Your task to perform on an android device: Clear the cart on newegg.com. Add logitech g pro to the cart on newegg.com, then select checkout. Image 0: 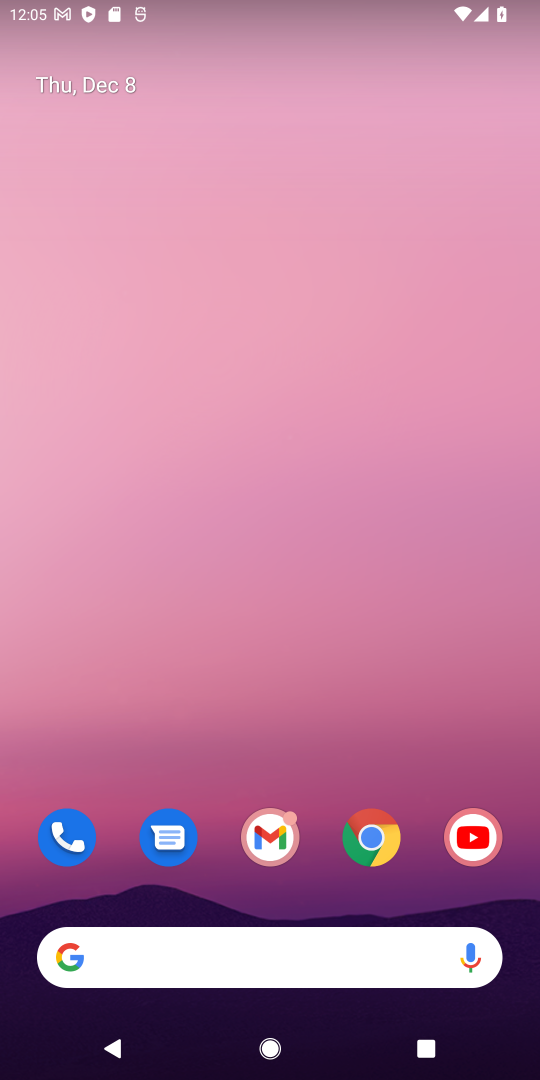
Step 0: click (370, 848)
Your task to perform on an android device: Clear the cart on newegg.com. Add logitech g pro to the cart on newegg.com, then select checkout. Image 1: 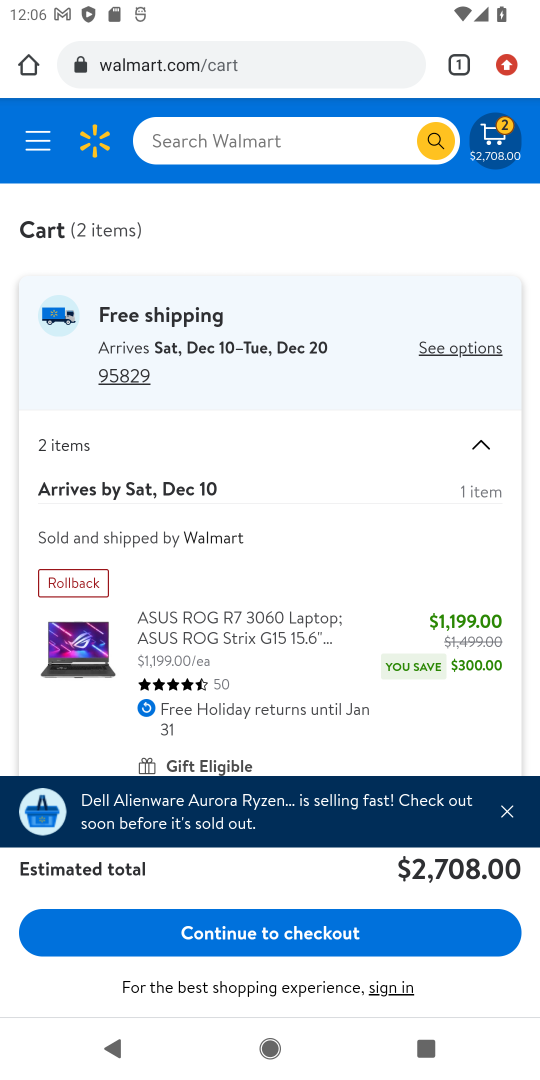
Step 1: click (179, 53)
Your task to perform on an android device: Clear the cart on newegg.com. Add logitech g pro to the cart on newegg.com, then select checkout. Image 2: 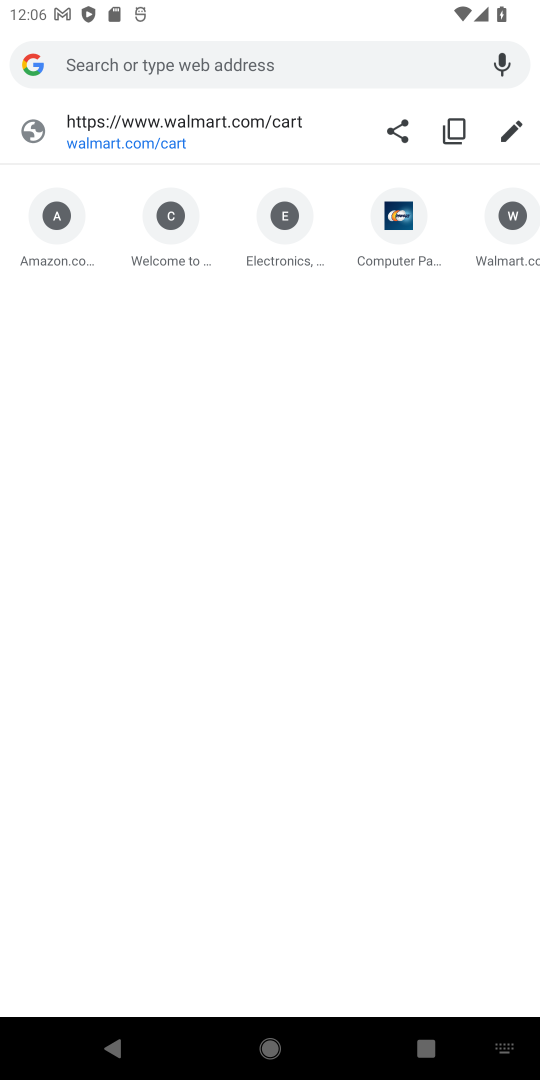
Step 2: type "newegg.com"
Your task to perform on an android device: Clear the cart on newegg.com. Add logitech g pro to the cart on newegg.com, then select checkout. Image 3: 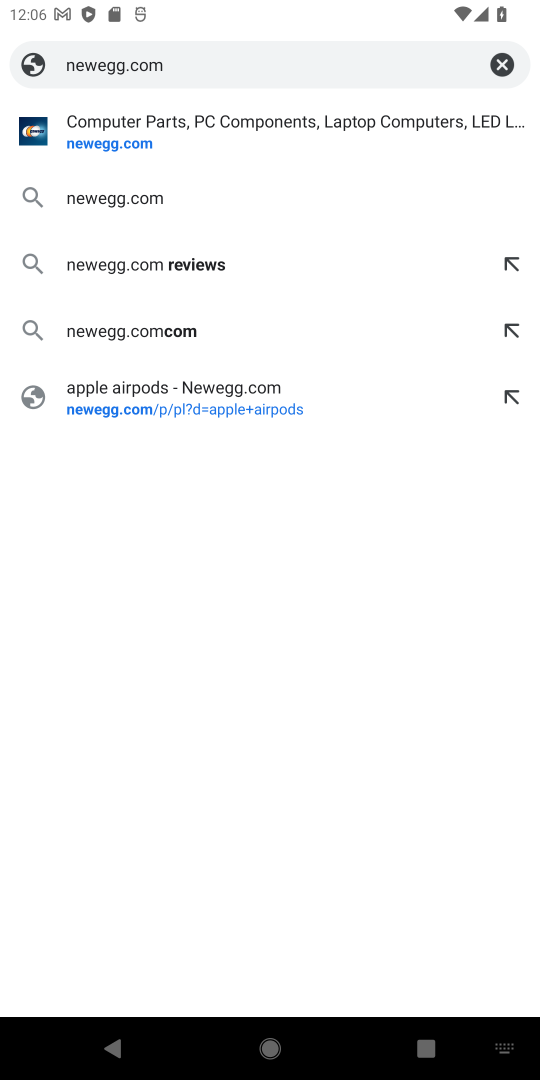
Step 3: press enter
Your task to perform on an android device: Clear the cart on newegg.com. Add logitech g pro to the cart on newegg.com, then select checkout. Image 4: 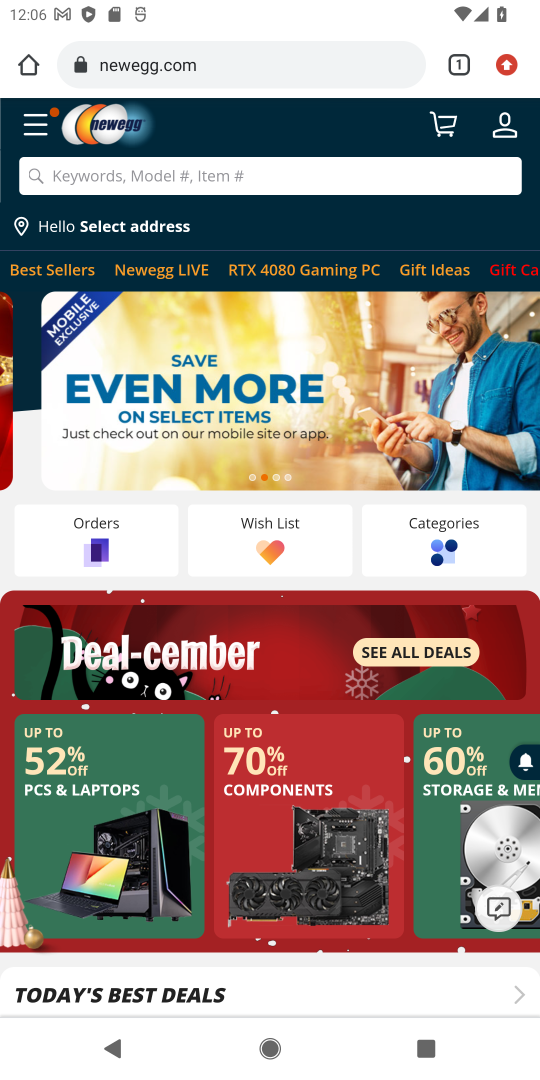
Step 4: click (442, 125)
Your task to perform on an android device: Clear the cart on newegg.com. Add logitech g pro to the cart on newegg.com, then select checkout. Image 5: 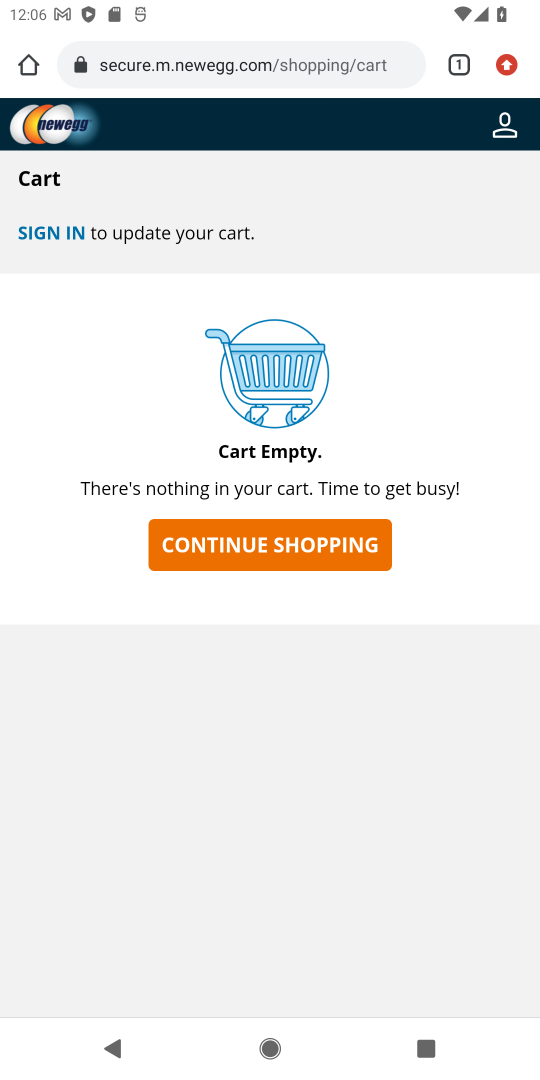
Step 5: click (39, 133)
Your task to perform on an android device: Clear the cart on newegg.com. Add logitech g pro to the cart on newegg.com, then select checkout. Image 6: 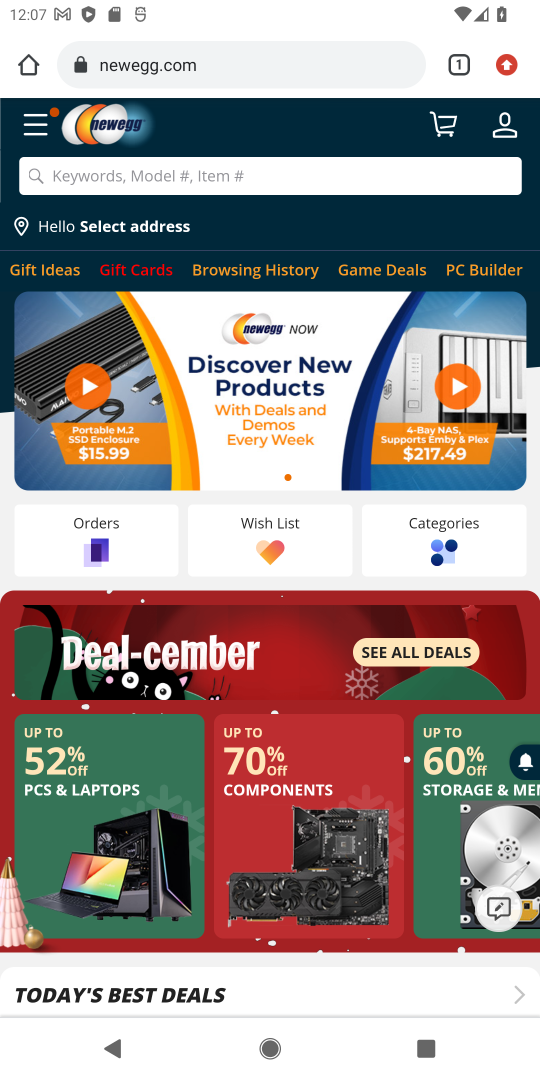
Step 6: click (318, 166)
Your task to perform on an android device: Clear the cart on newegg.com. Add logitech g pro to the cart on newegg.com, then select checkout. Image 7: 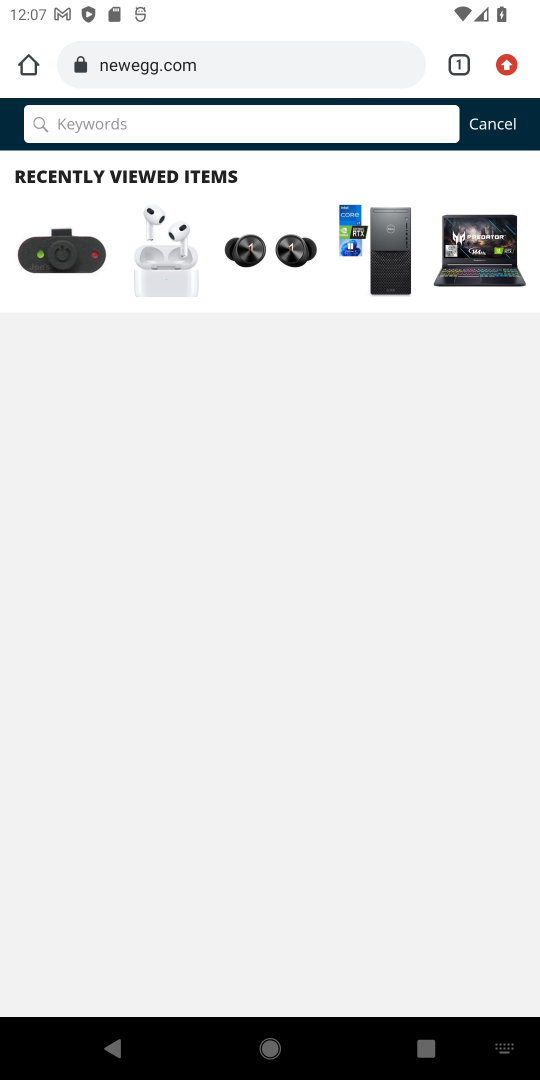
Step 7: type "logitech g pro"
Your task to perform on an android device: Clear the cart on newegg.com. Add logitech g pro to the cart on newegg.com, then select checkout. Image 8: 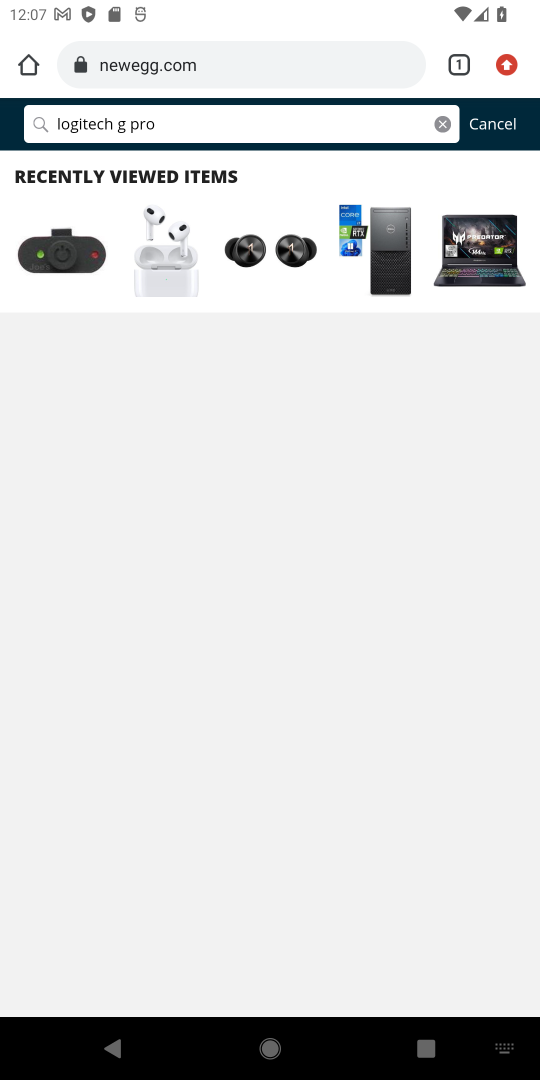
Step 8: press enter
Your task to perform on an android device: Clear the cart on newegg.com. Add logitech g pro to the cart on newegg.com, then select checkout. Image 9: 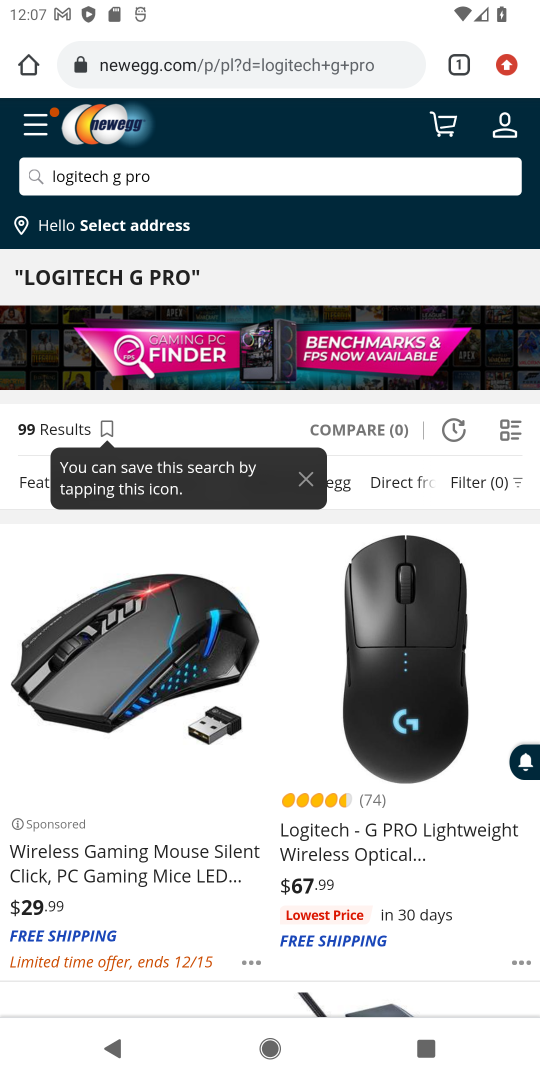
Step 9: click (371, 836)
Your task to perform on an android device: Clear the cart on newegg.com. Add logitech g pro to the cart on newegg.com, then select checkout. Image 10: 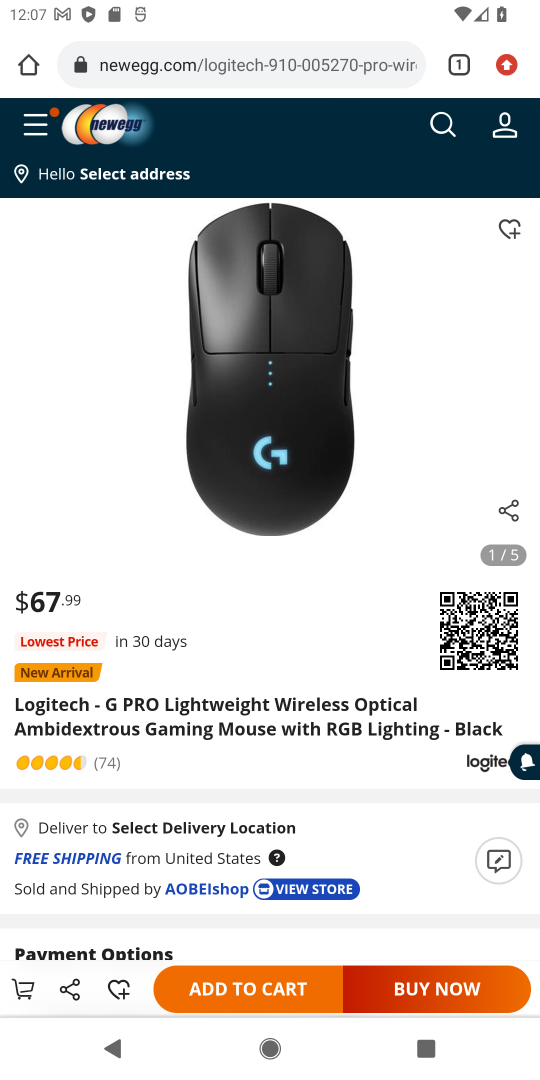
Step 10: click (268, 989)
Your task to perform on an android device: Clear the cart on newegg.com. Add logitech g pro to the cart on newegg.com, then select checkout. Image 11: 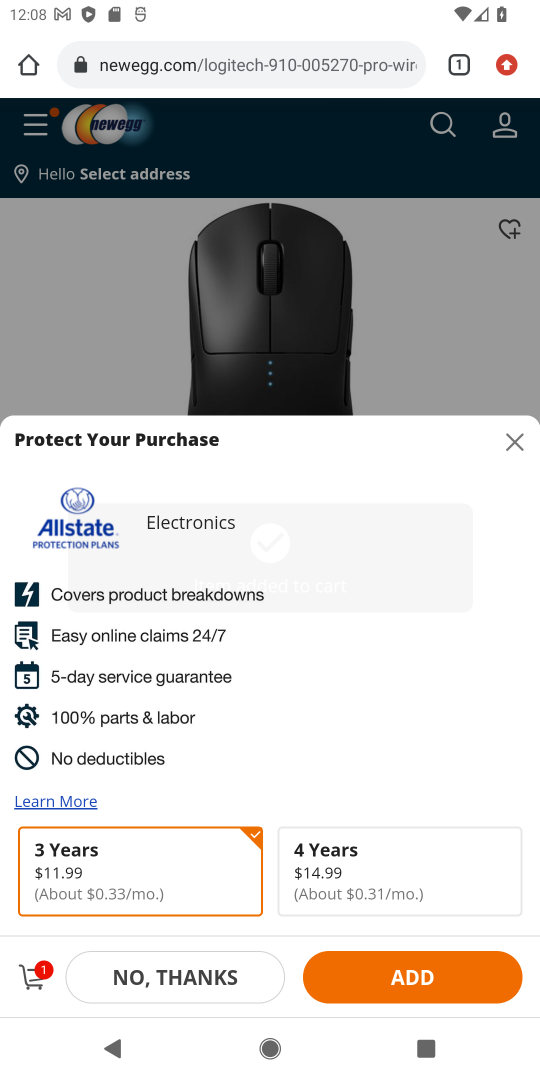
Step 11: click (409, 985)
Your task to perform on an android device: Clear the cart on newegg.com. Add logitech g pro to the cart on newegg.com, then select checkout. Image 12: 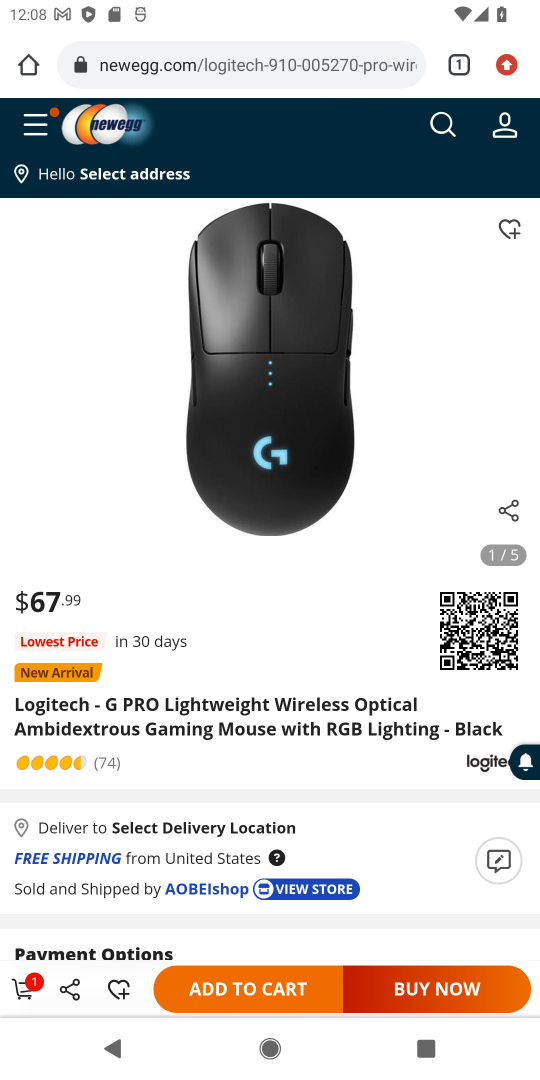
Step 12: click (22, 983)
Your task to perform on an android device: Clear the cart on newegg.com. Add logitech g pro to the cart on newegg.com, then select checkout. Image 13: 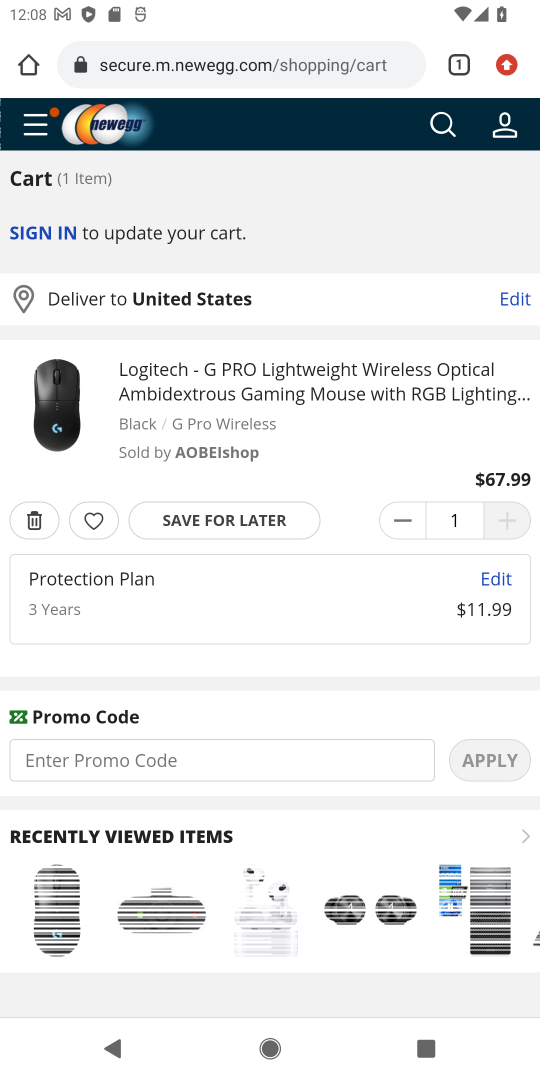
Step 13: drag from (328, 817) to (342, 581)
Your task to perform on an android device: Clear the cart on newegg.com. Add logitech g pro to the cart on newegg.com, then select checkout. Image 14: 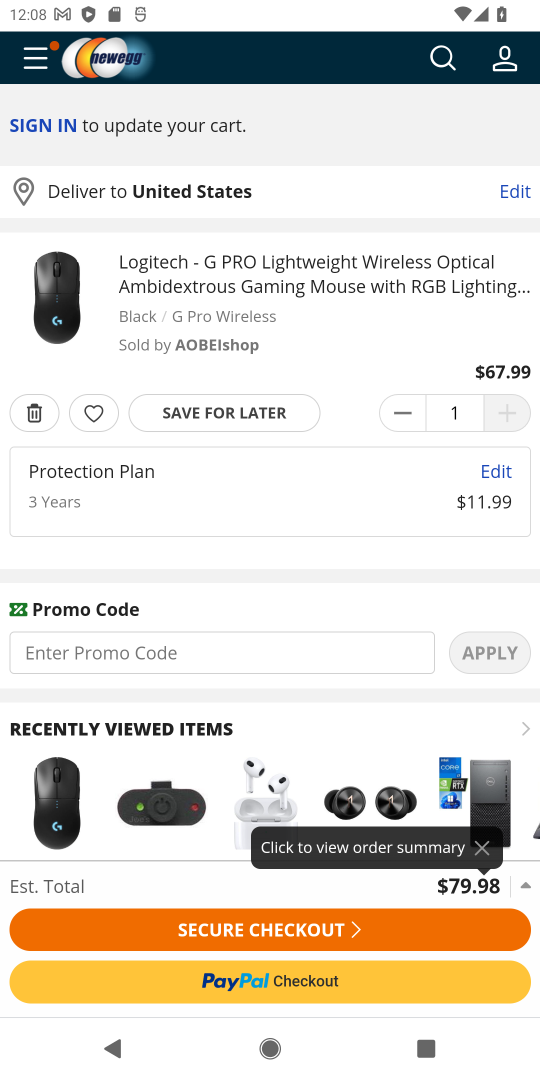
Step 14: click (231, 941)
Your task to perform on an android device: Clear the cart on newegg.com. Add logitech g pro to the cart on newegg.com, then select checkout. Image 15: 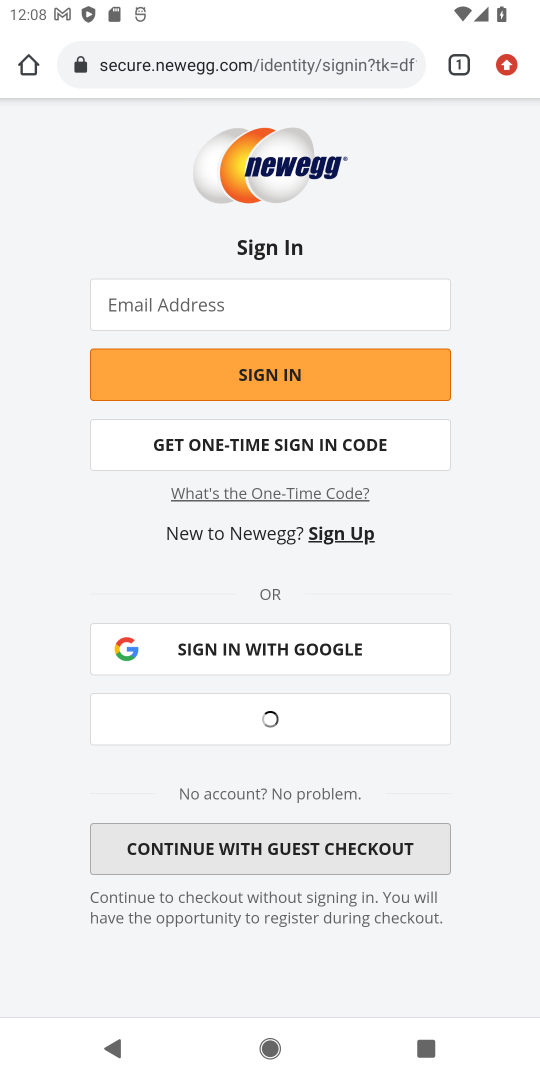
Step 15: click (231, 941)
Your task to perform on an android device: Clear the cart on newegg.com. Add logitech g pro to the cart on newegg.com, then select checkout. Image 16: 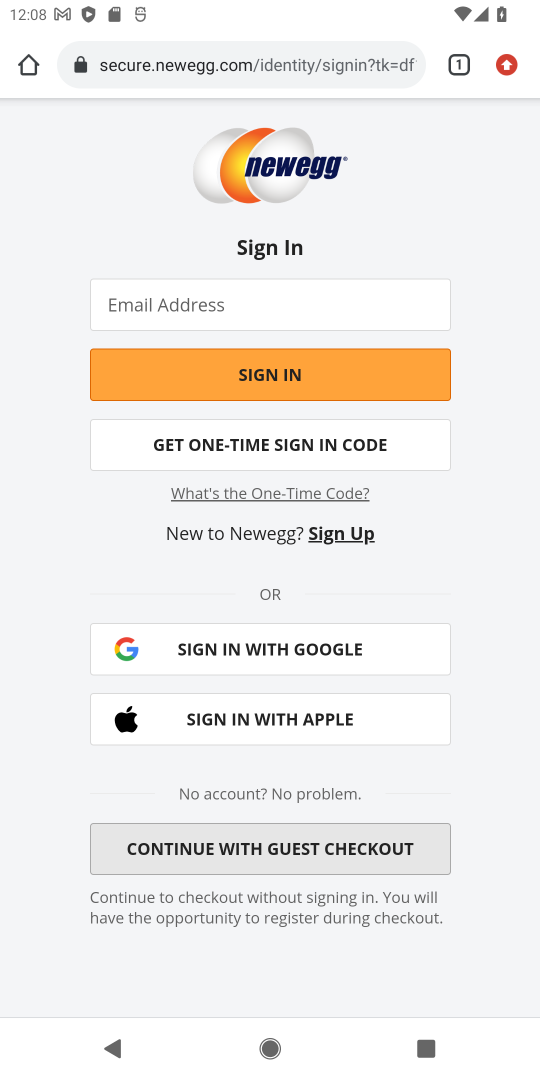
Step 16: task complete